Your task to perform on an android device: What's on my calendar today? Image 0: 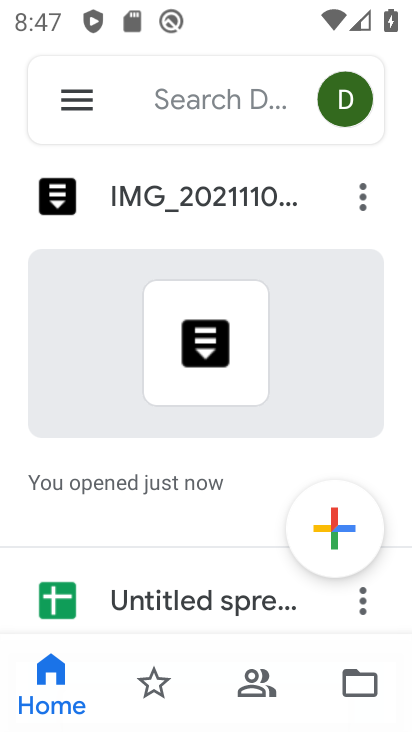
Step 0: press home button
Your task to perform on an android device: What's on my calendar today? Image 1: 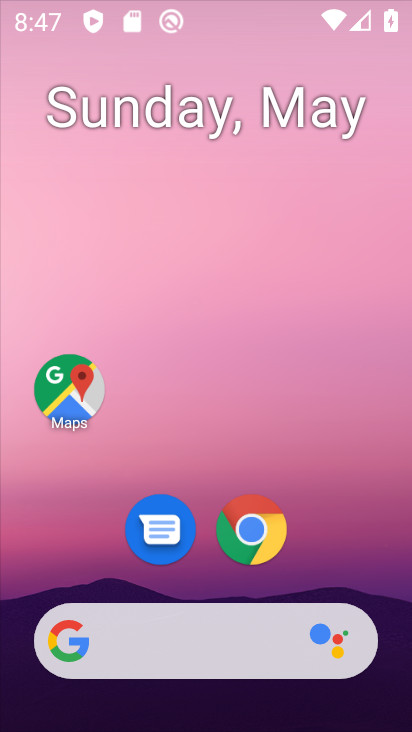
Step 1: drag from (335, 415) to (359, 115)
Your task to perform on an android device: What's on my calendar today? Image 2: 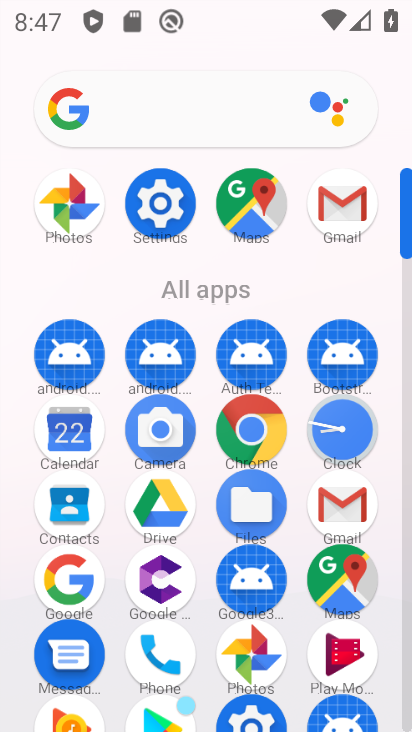
Step 2: click (70, 443)
Your task to perform on an android device: What's on my calendar today? Image 3: 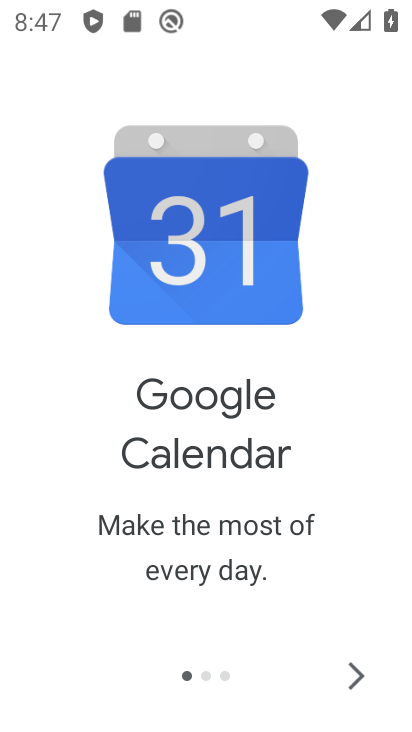
Step 3: click (356, 671)
Your task to perform on an android device: What's on my calendar today? Image 4: 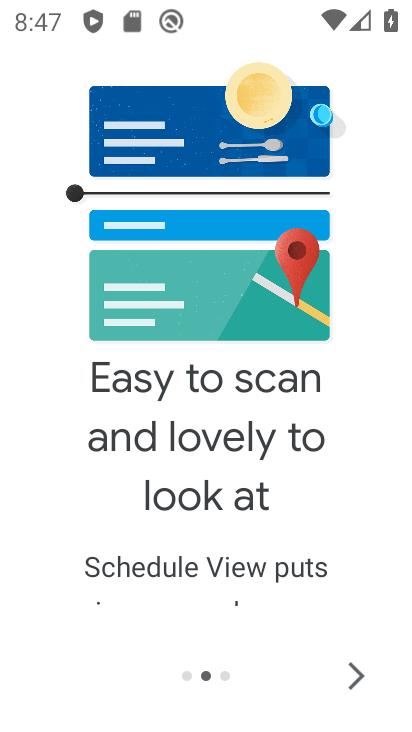
Step 4: click (356, 671)
Your task to perform on an android device: What's on my calendar today? Image 5: 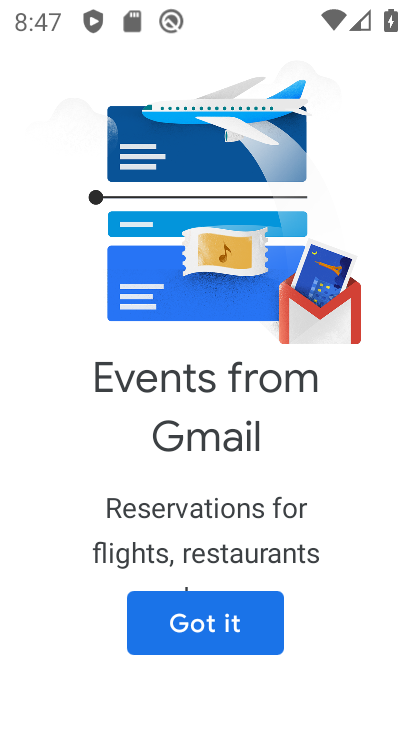
Step 5: click (217, 628)
Your task to perform on an android device: What's on my calendar today? Image 6: 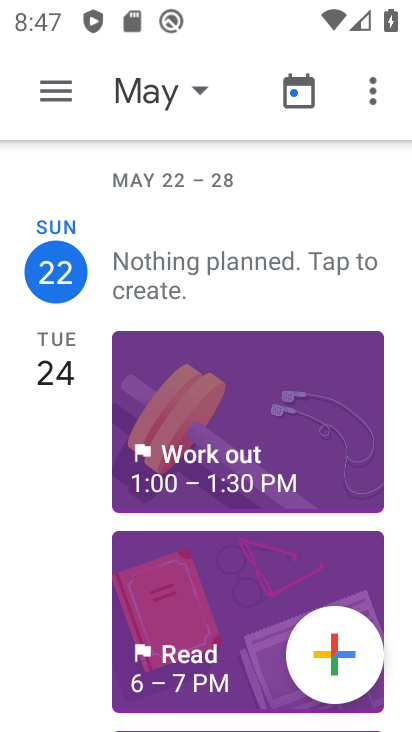
Step 6: click (179, 109)
Your task to perform on an android device: What's on my calendar today? Image 7: 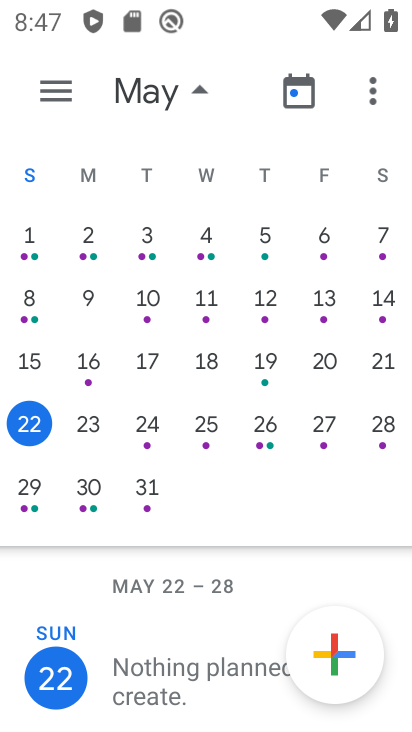
Step 7: click (31, 417)
Your task to perform on an android device: What's on my calendar today? Image 8: 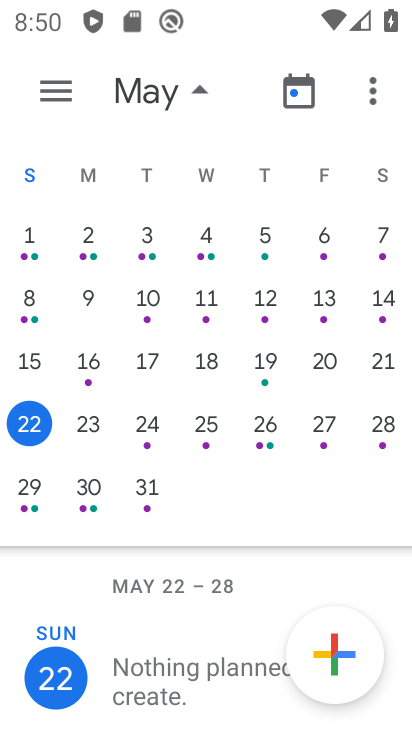
Step 8: task complete